Your task to perform on an android device: Go to sound settings Image 0: 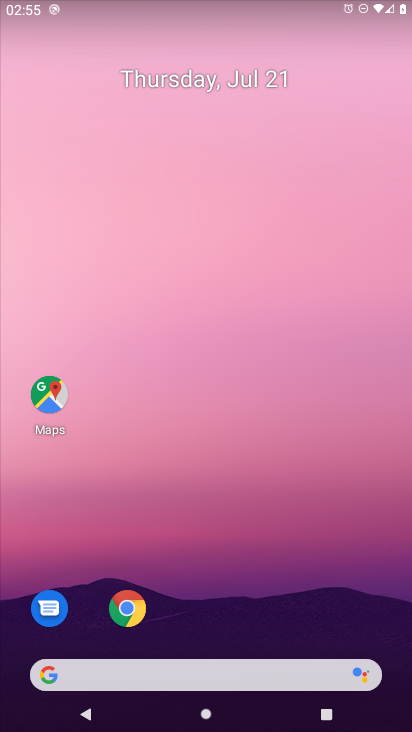
Step 0: press home button
Your task to perform on an android device: Go to sound settings Image 1: 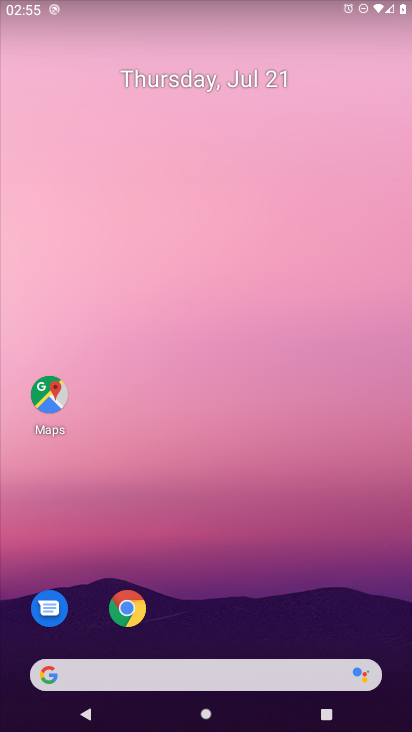
Step 1: drag from (220, 623) to (271, 96)
Your task to perform on an android device: Go to sound settings Image 2: 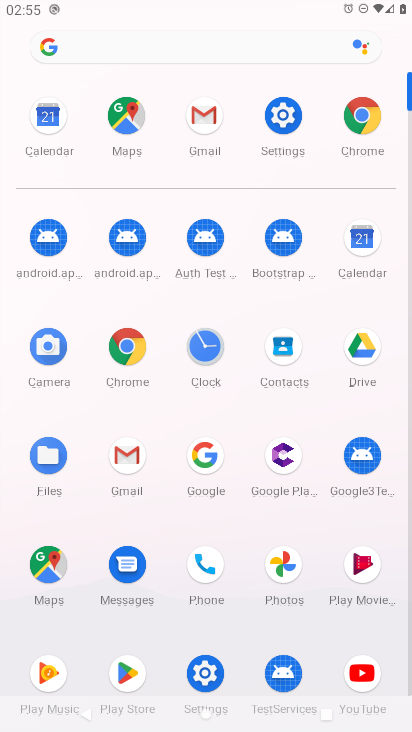
Step 2: click (281, 120)
Your task to perform on an android device: Go to sound settings Image 3: 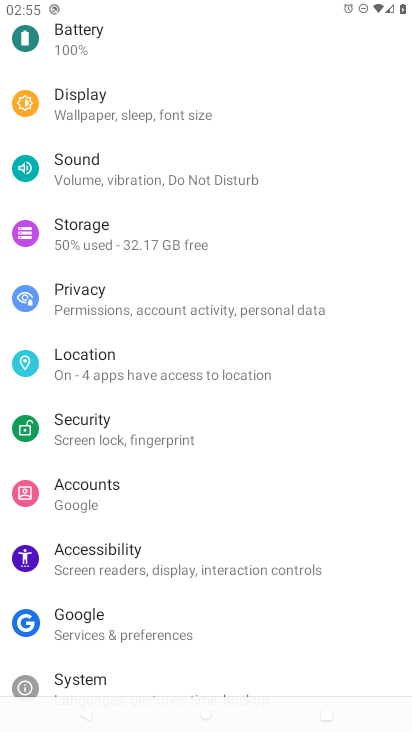
Step 3: click (90, 166)
Your task to perform on an android device: Go to sound settings Image 4: 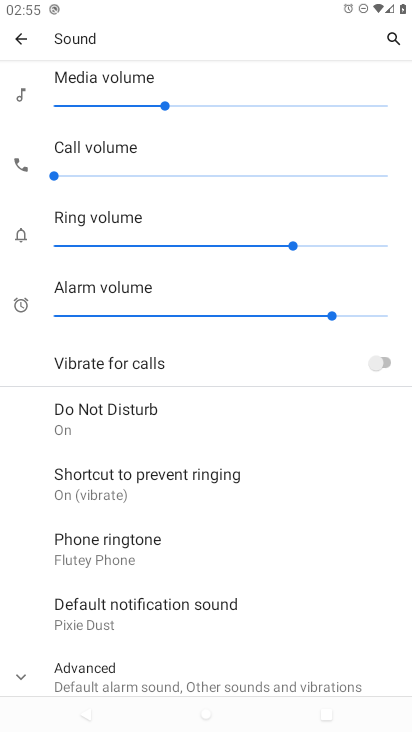
Step 4: task complete